Your task to perform on an android device: Go to privacy settings Image 0: 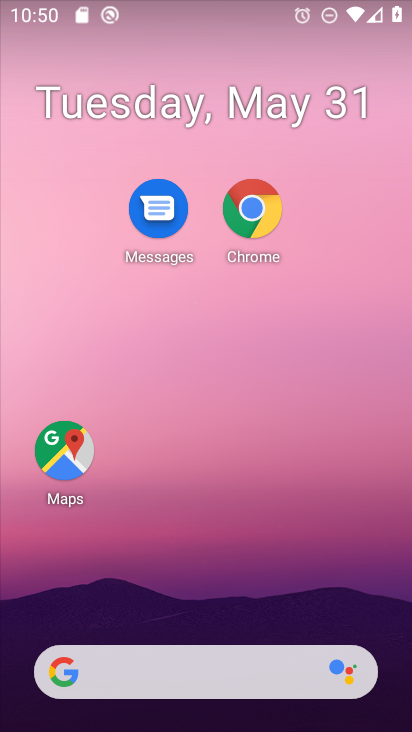
Step 0: press home button
Your task to perform on an android device: Go to privacy settings Image 1: 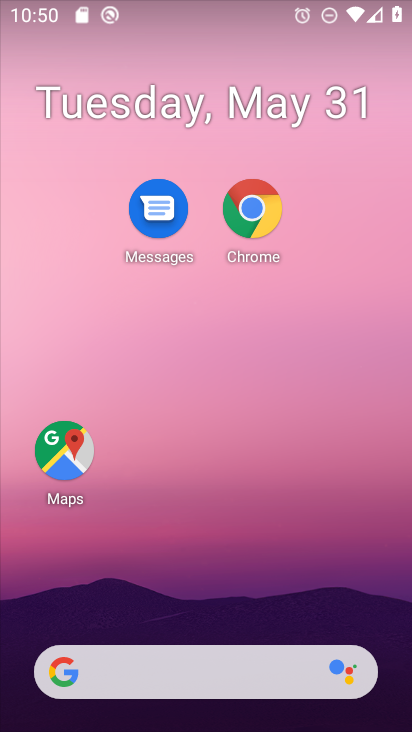
Step 1: drag from (211, 619) to (227, 93)
Your task to perform on an android device: Go to privacy settings Image 2: 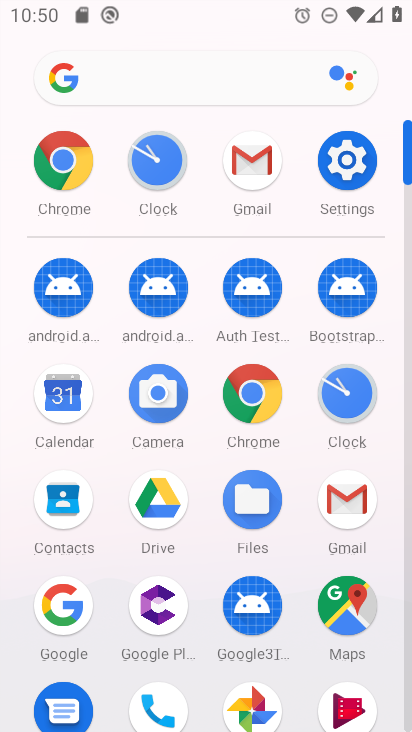
Step 2: click (354, 150)
Your task to perform on an android device: Go to privacy settings Image 3: 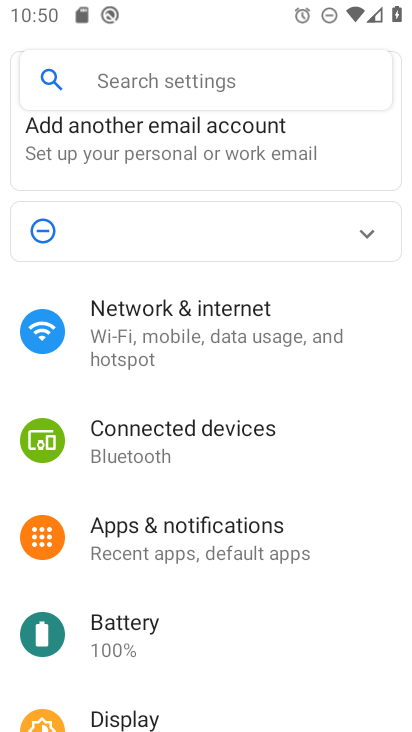
Step 3: drag from (195, 688) to (232, 152)
Your task to perform on an android device: Go to privacy settings Image 4: 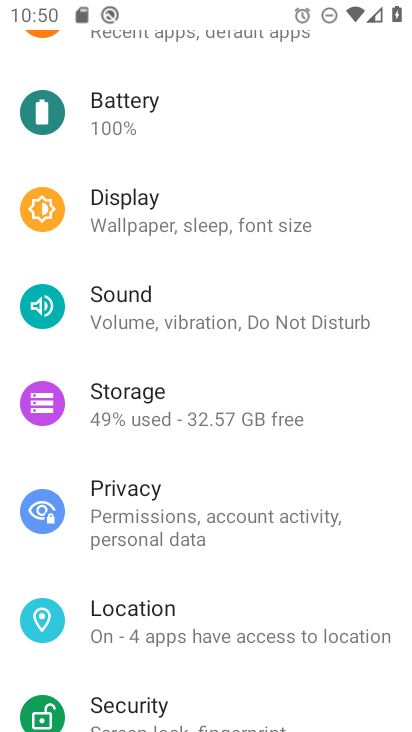
Step 4: click (175, 482)
Your task to perform on an android device: Go to privacy settings Image 5: 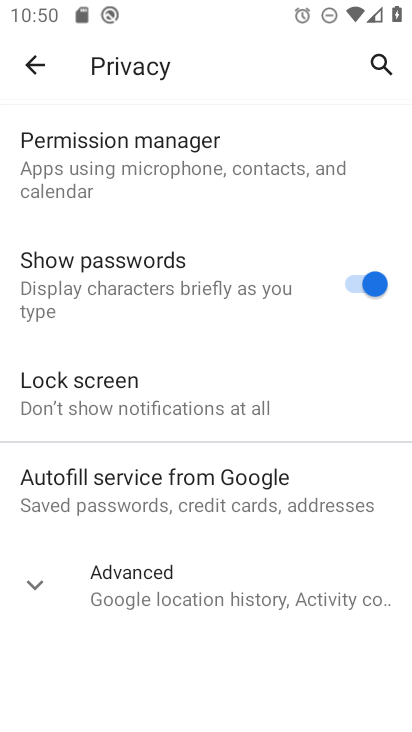
Step 5: click (36, 572)
Your task to perform on an android device: Go to privacy settings Image 6: 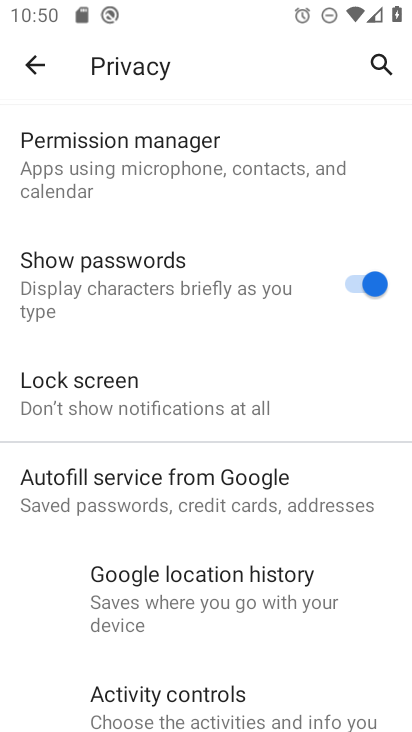
Step 6: task complete